Your task to perform on an android device: open device folders in google photos Image 0: 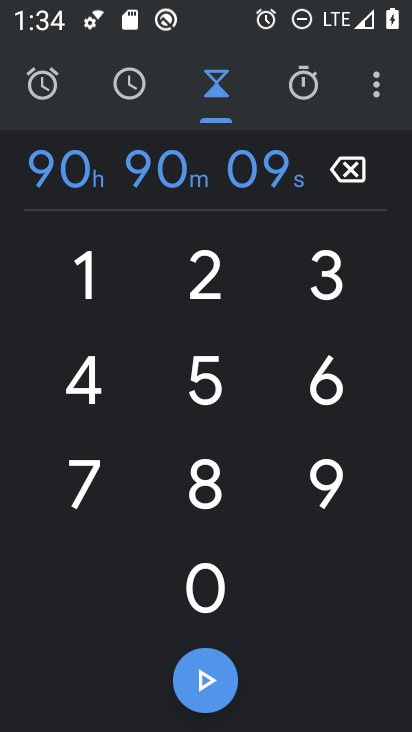
Step 0: press home button
Your task to perform on an android device: open device folders in google photos Image 1: 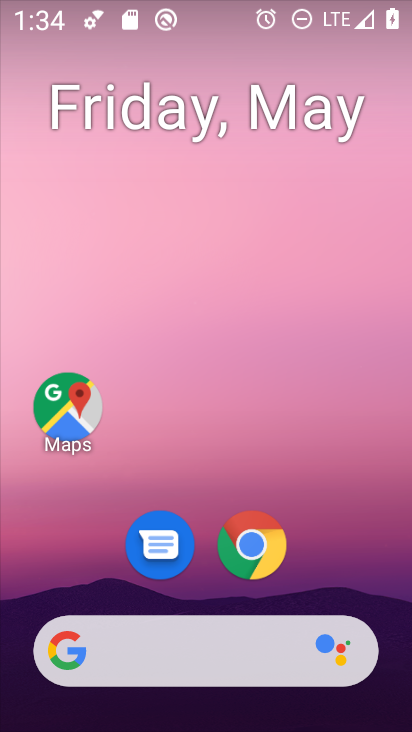
Step 1: drag from (313, 588) to (313, 202)
Your task to perform on an android device: open device folders in google photos Image 2: 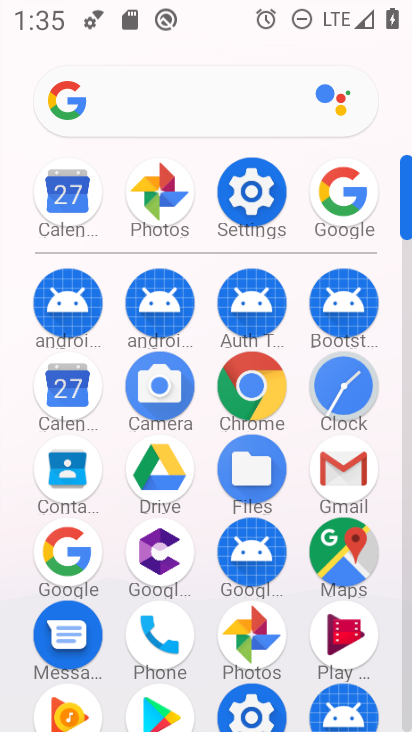
Step 2: click (256, 631)
Your task to perform on an android device: open device folders in google photos Image 3: 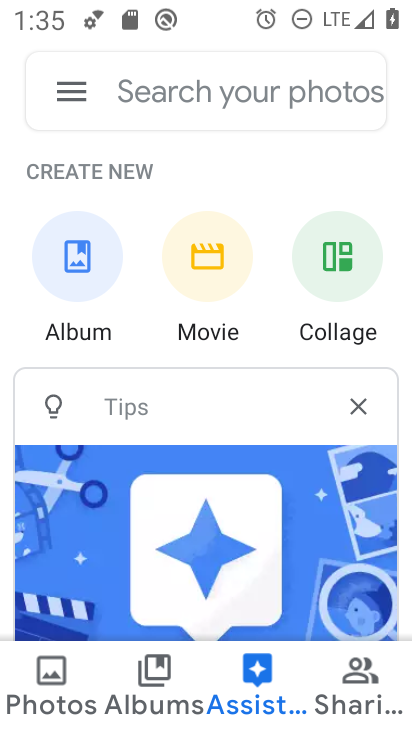
Step 3: click (137, 675)
Your task to perform on an android device: open device folders in google photos Image 4: 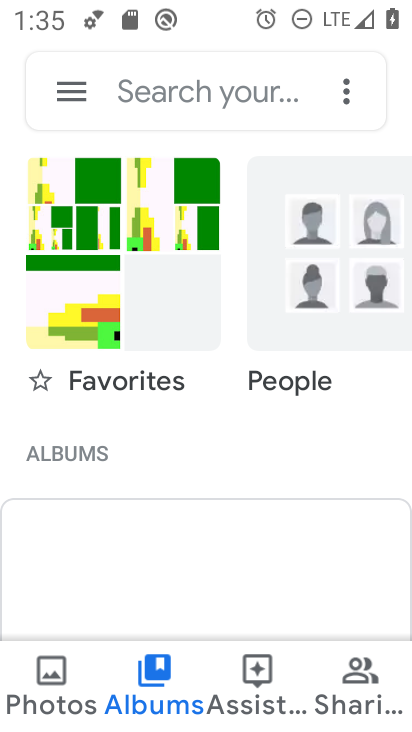
Step 4: click (46, 660)
Your task to perform on an android device: open device folders in google photos Image 5: 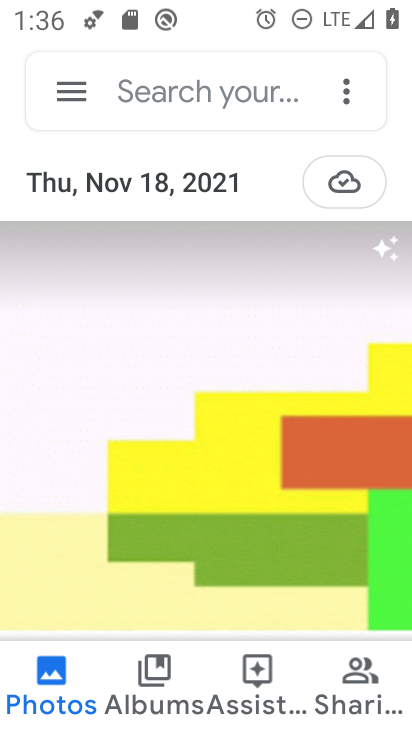
Step 5: task complete